Your task to perform on an android device: Show me popular games on the Play Store Image 0: 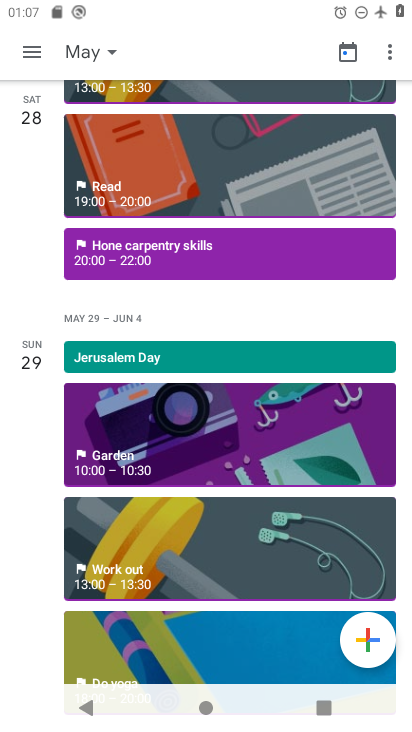
Step 0: press home button
Your task to perform on an android device: Show me popular games on the Play Store Image 1: 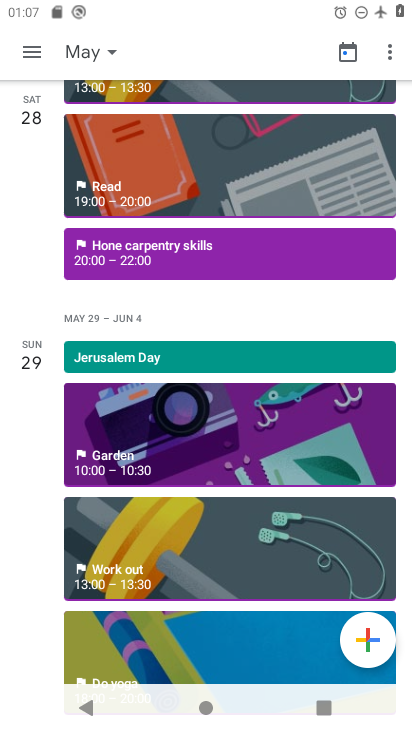
Step 1: press home button
Your task to perform on an android device: Show me popular games on the Play Store Image 2: 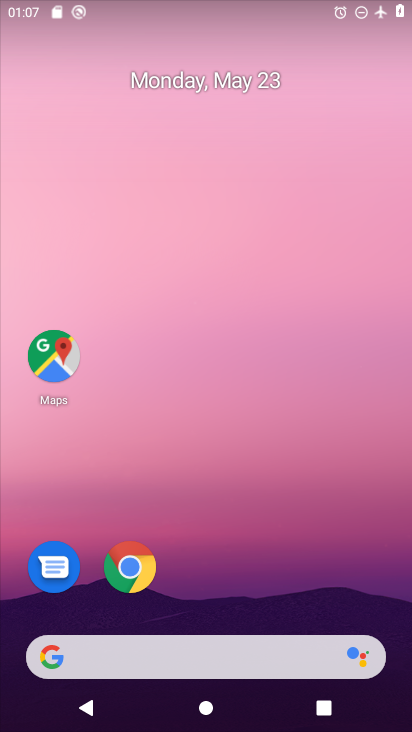
Step 2: drag from (228, 594) to (280, 191)
Your task to perform on an android device: Show me popular games on the Play Store Image 3: 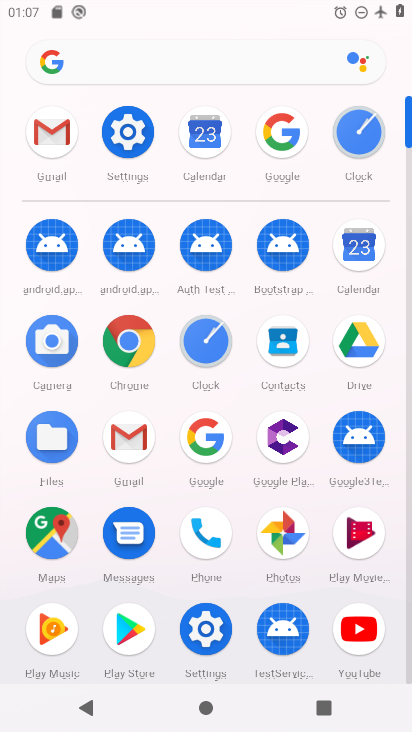
Step 3: click (136, 602)
Your task to perform on an android device: Show me popular games on the Play Store Image 4: 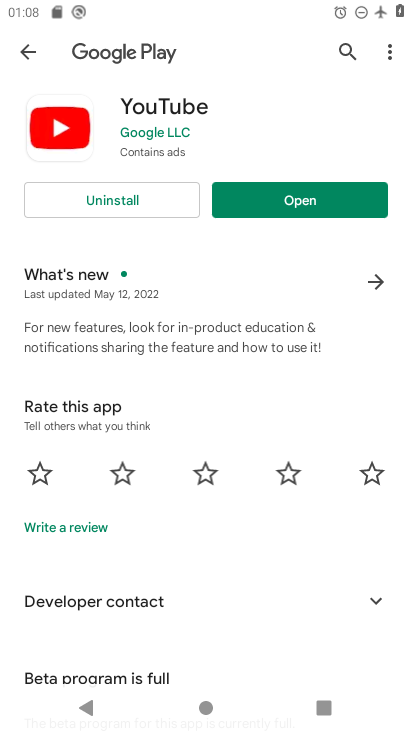
Step 4: click (35, 59)
Your task to perform on an android device: Show me popular games on the Play Store Image 5: 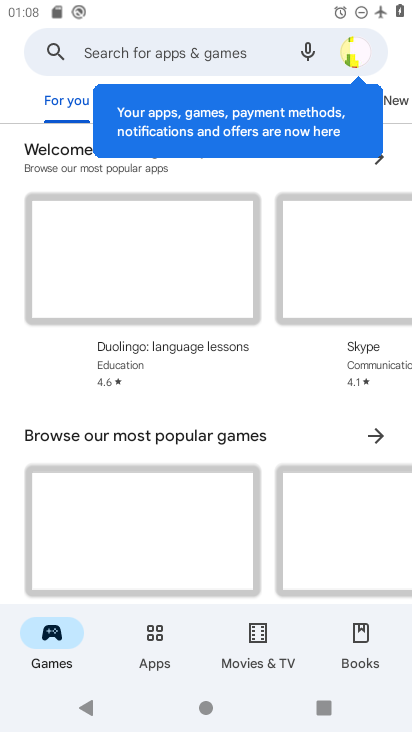
Step 5: click (191, 128)
Your task to perform on an android device: Show me popular games on the Play Store Image 6: 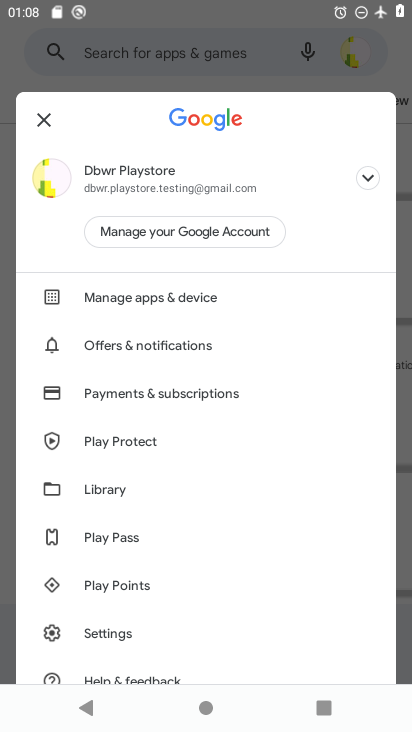
Step 6: click (155, 100)
Your task to perform on an android device: Show me popular games on the Play Store Image 7: 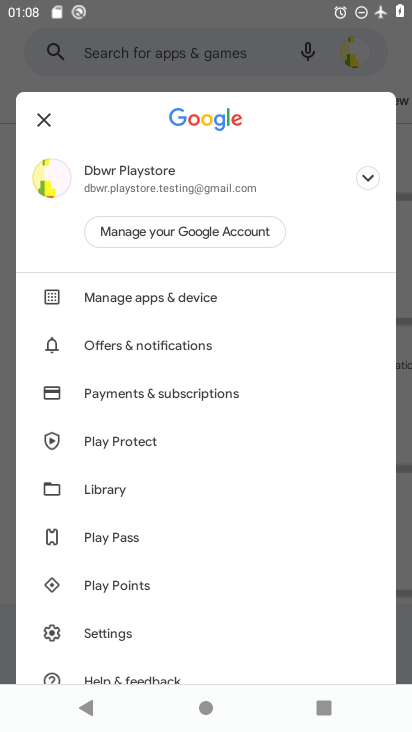
Step 7: click (43, 108)
Your task to perform on an android device: Show me popular games on the Play Store Image 8: 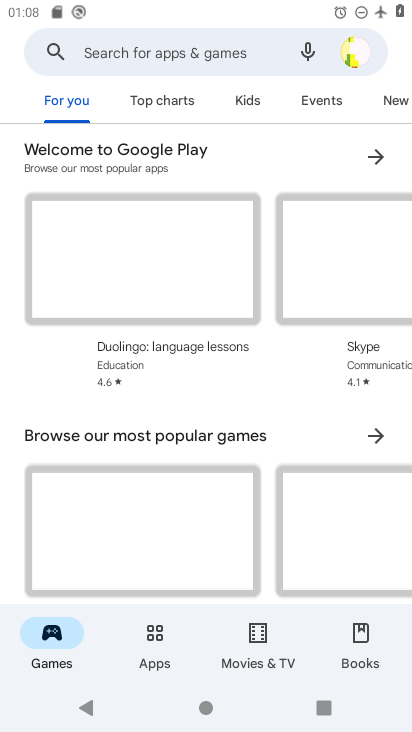
Step 8: click (144, 94)
Your task to perform on an android device: Show me popular games on the Play Store Image 9: 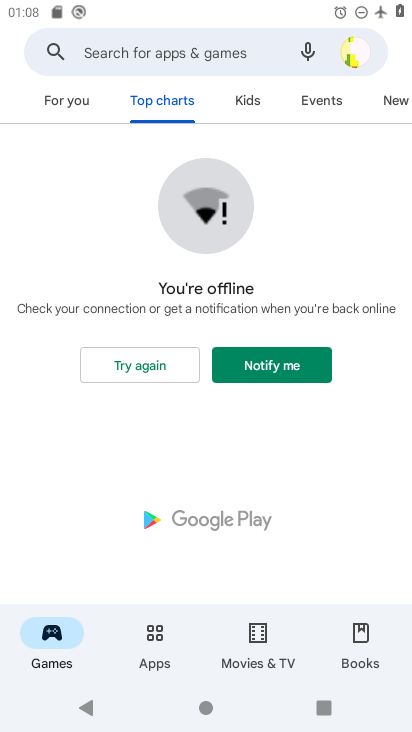
Step 9: task complete